Your task to perform on an android device: turn on the 24-hour format for clock Image 0: 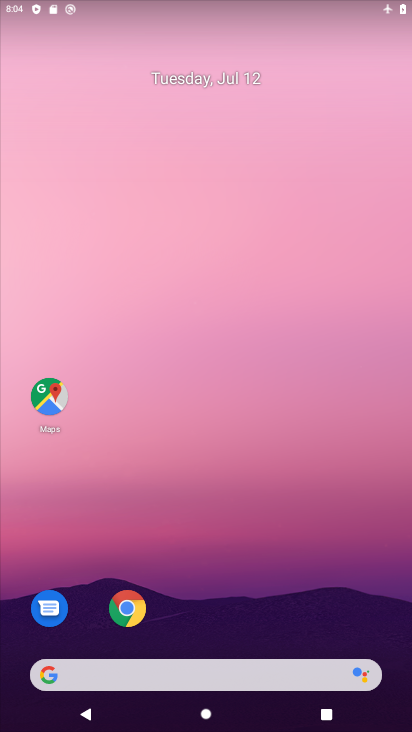
Step 0: drag from (252, 643) to (248, 44)
Your task to perform on an android device: turn on the 24-hour format for clock Image 1: 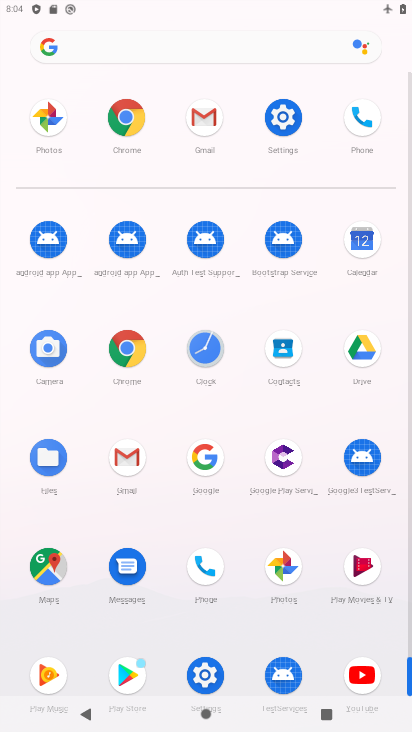
Step 1: click (205, 357)
Your task to perform on an android device: turn on the 24-hour format for clock Image 2: 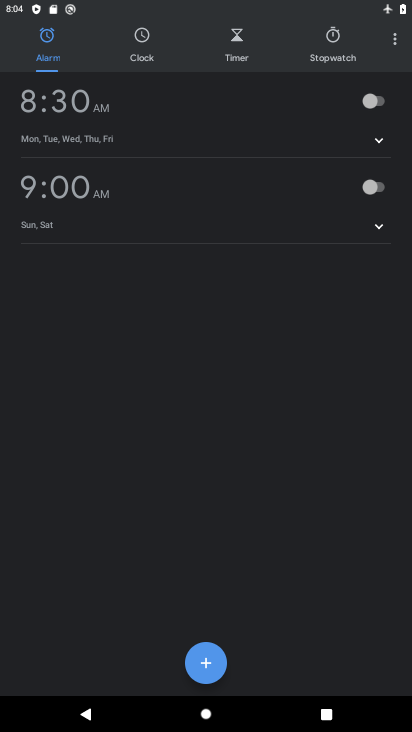
Step 2: drag from (389, 42) to (298, 86)
Your task to perform on an android device: turn on the 24-hour format for clock Image 3: 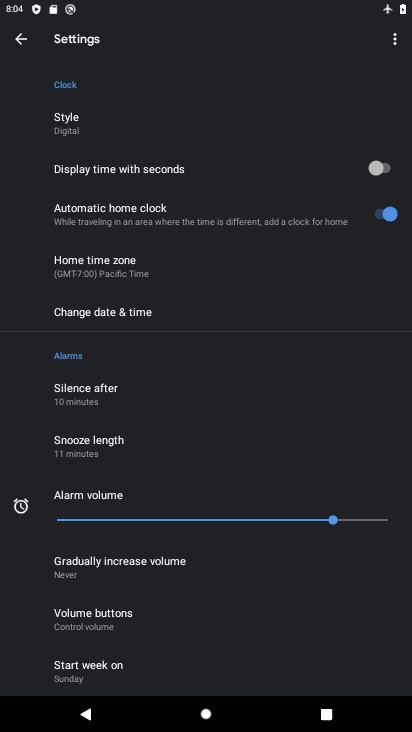
Step 3: click (76, 318)
Your task to perform on an android device: turn on the 24-hour format for clock Image 4: 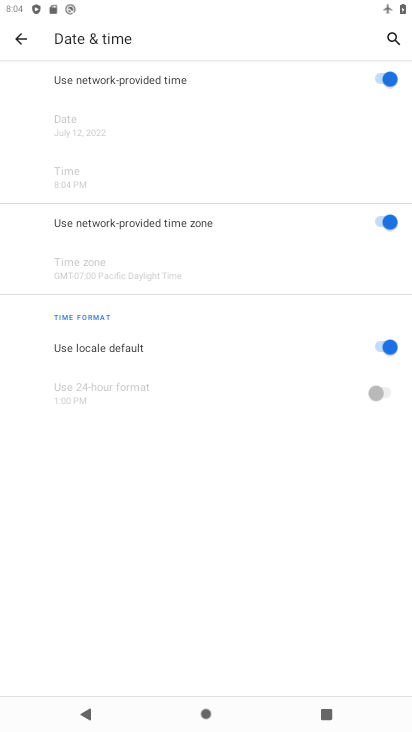
Step 4: click (389, 339)
Your task to perform on an android device: turn on the 24-hour format for clock Image 5: 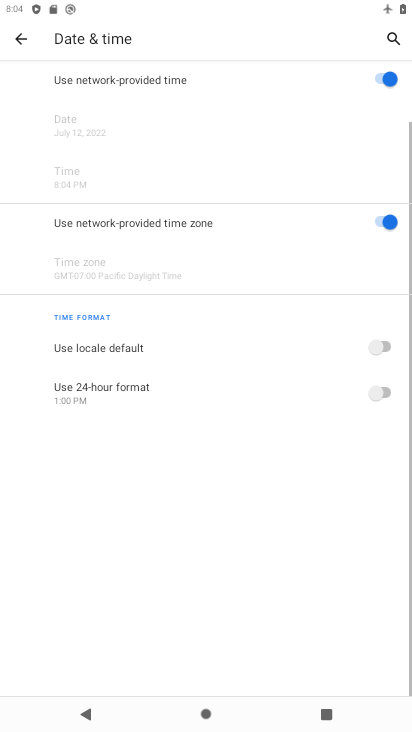
Step 5: click (382, 383)
Your task to perform on an android device: turn on the 24-hour format for clock Image 6: 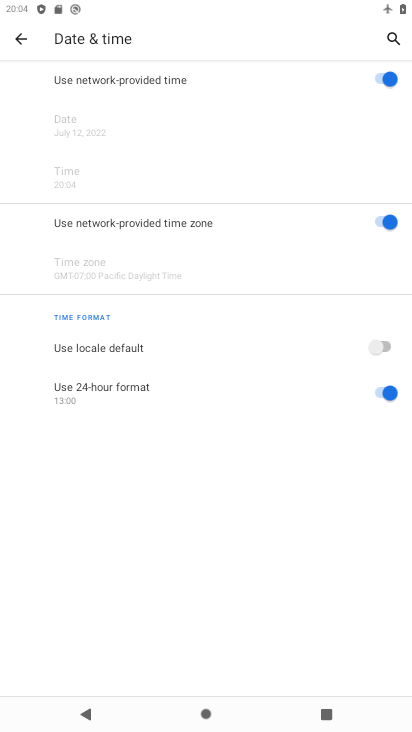
Step 6: task complete